Your task to perform on an android device: toggle javascript in the chrome app Image 0: 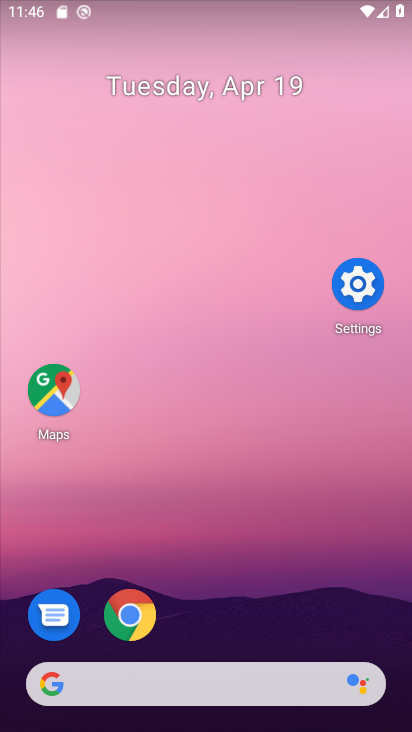
Step 0: click (330, 312)
Your task to perform on an android device: toggle javascript in the chrome app Image 1: 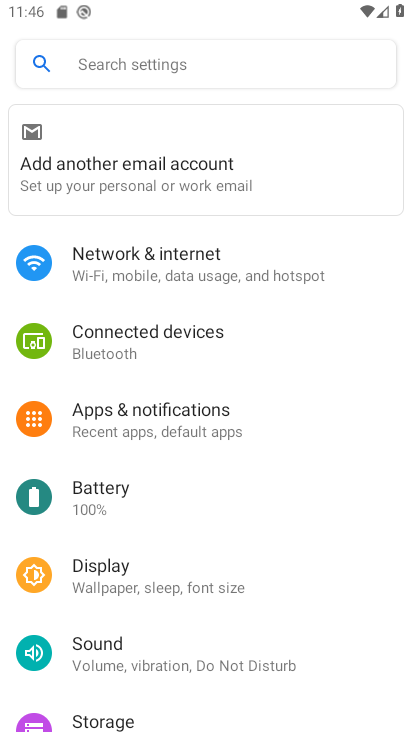
Step 1: drag from (226, 589) to (301, 256)
Your task to perform on an android device: toggle javascript in the chrome app Image 2: 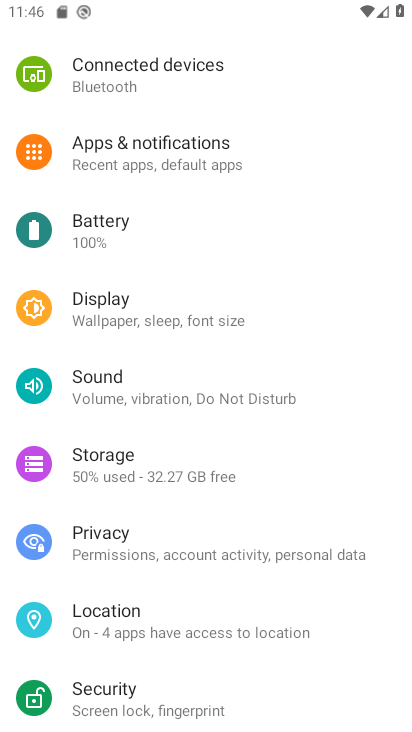
Step 2: press home button
Your task to perform on an android device: toggle javascript in the chrome app Image 3: 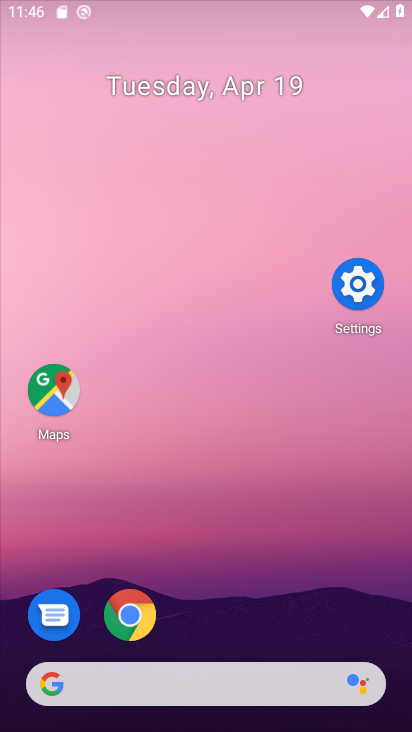
Step 3: drag from (216, 612) to (333, 56)
Your task to perform on an android device: toggle javascript in the chrome app Image 4: 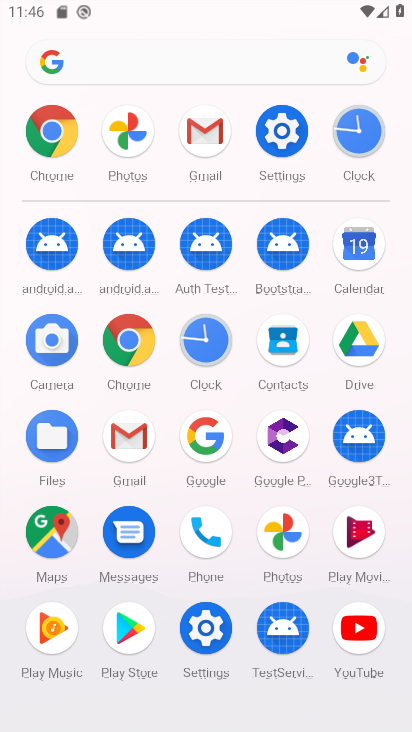
Step 4: click (135, 326)
Your task to perform on an android device: toggle javascript in the chrome app Image 5: 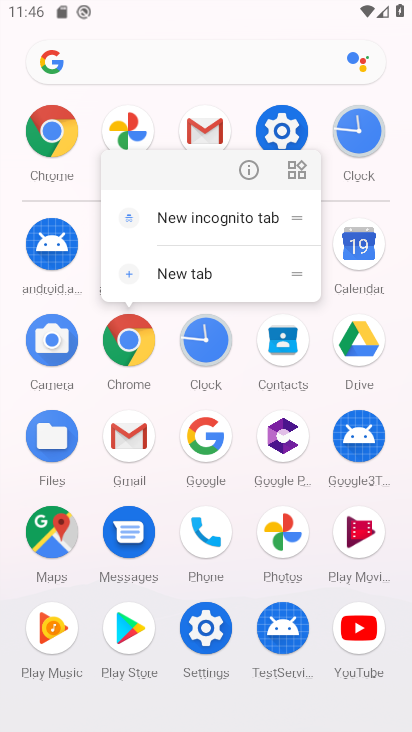
Step 5: click (247, 178)
Your task to perform on an android device: toggle javascript in the chrome app Image 6: 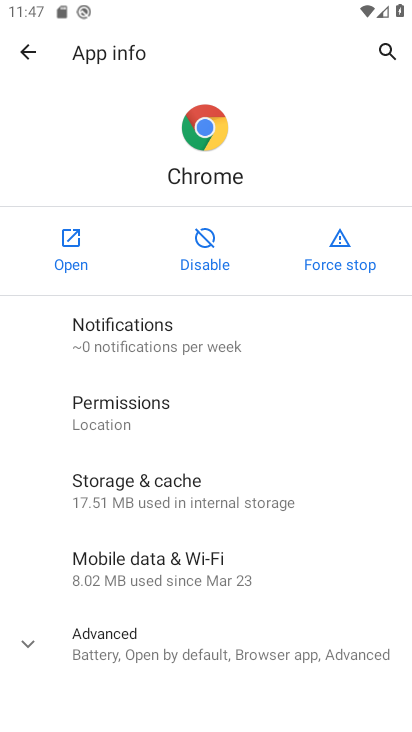
Step 6: click (65, 250)
Your task to perform on an android device: toggle javascript in the chrome app Image 7: 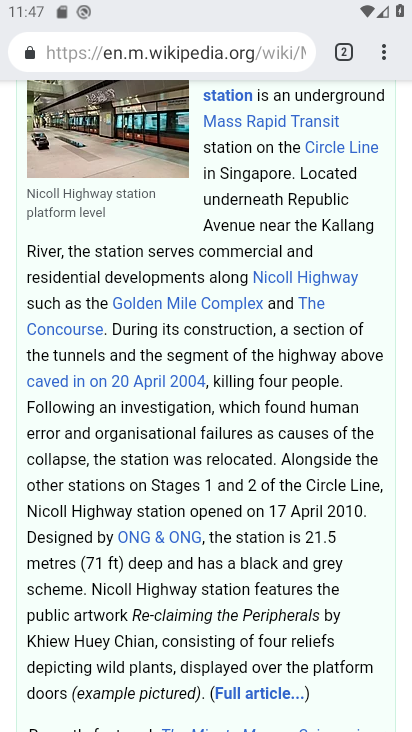
Step 7: drag from (237, 331) to (282, 600)
Your task to perform on an android device: toggle javascript in the chrome app Image 8: 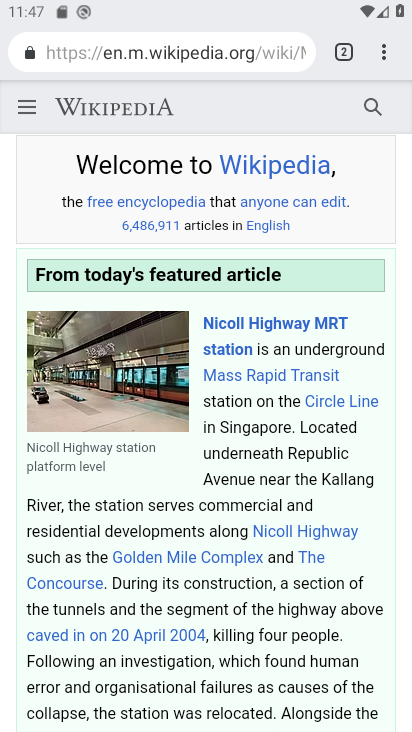
Step 8: drag from (387, 41) to (252, 650)
Your task to perform on an android device: toggle javascript in the chrome app Image 9: 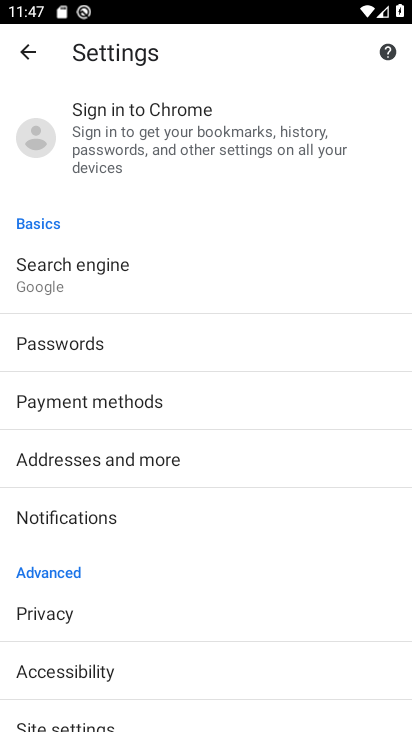
Step 9: click (97, 716)
Your task to perform on an android device: toggle javascript in the chrome app Image 10: 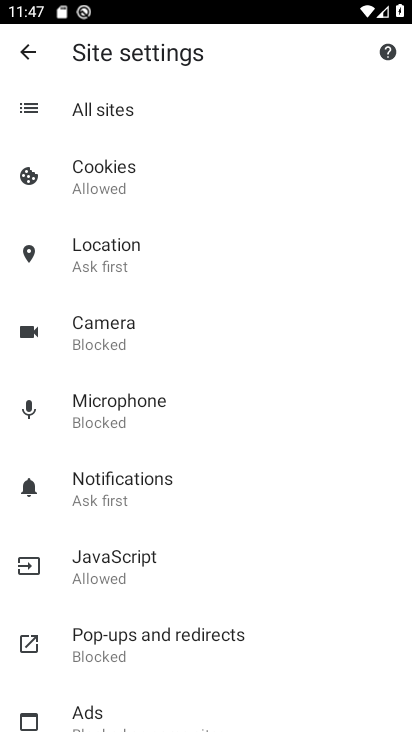
Step 10: click (143, 549)
Your task to perform on an android device: toggle javascript in the chrome app Image 11: 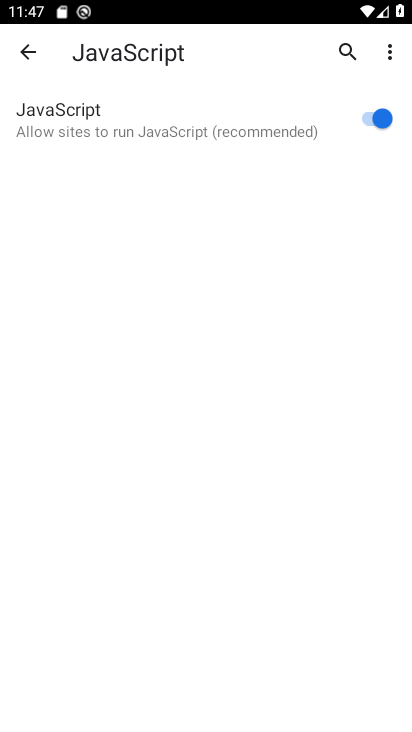
Step 11: click (379, 125)
Your task to perform on an android device: toggle javascript in the chrome app Image 12: 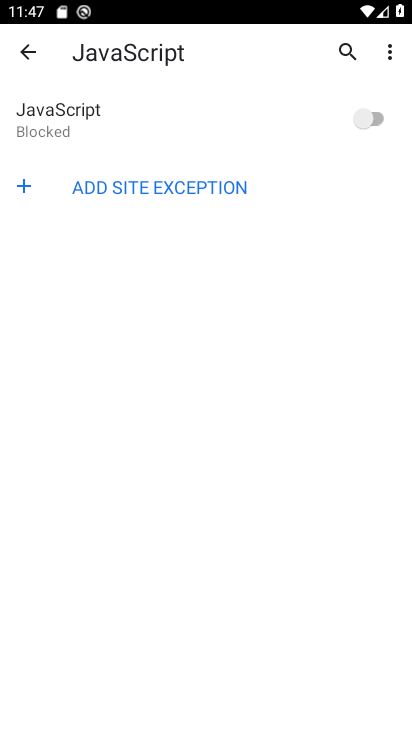
Step 12: task complete